Your task to perform on an android device: turn off data saver in the chrome app Image 0: 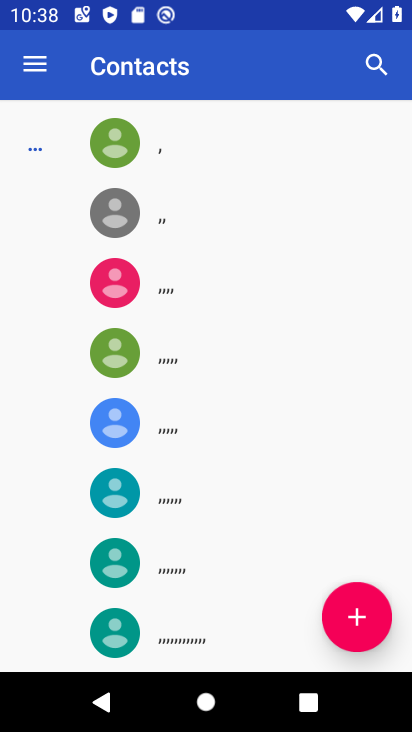
Step 0: press home button
Your task to perform on an android device: turn off data saver in the chrome app Image 1: 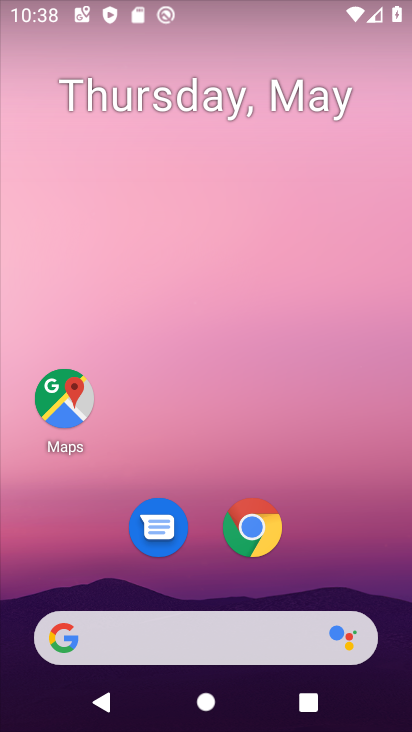
Step 1: click (256, 524)
Your task to perform on an android device: turn off data saver in the chrome app Image 2: 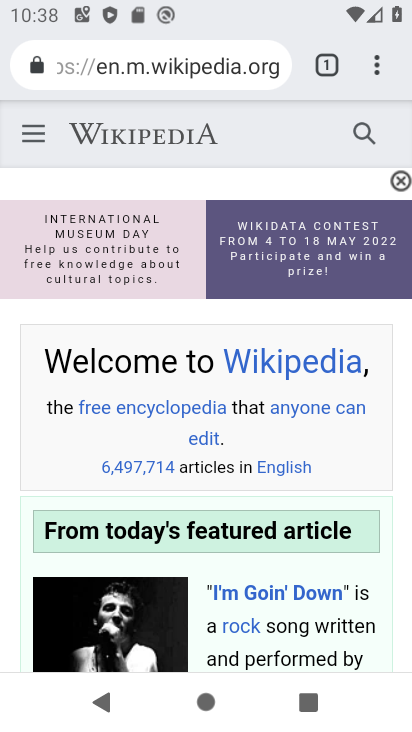
Step 2: click (375, 67)
Your task to perform on an android device: turn off data saver in the chrome app Image 3: 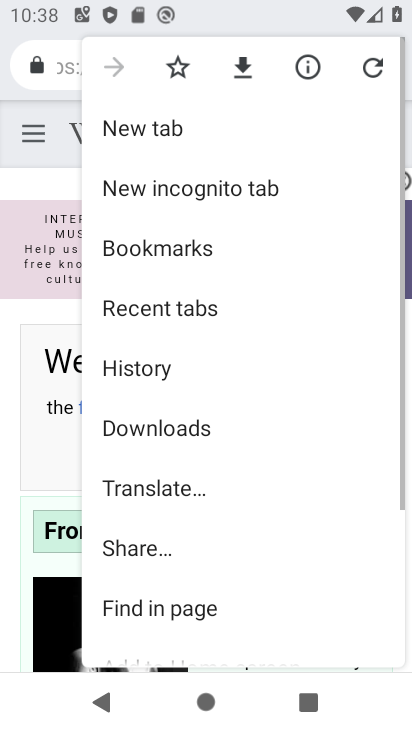
Step 3: drag from (213, 571) to (283, 174)
Your task to perform on an android device: turn off data saver in the chrome app Image 4: 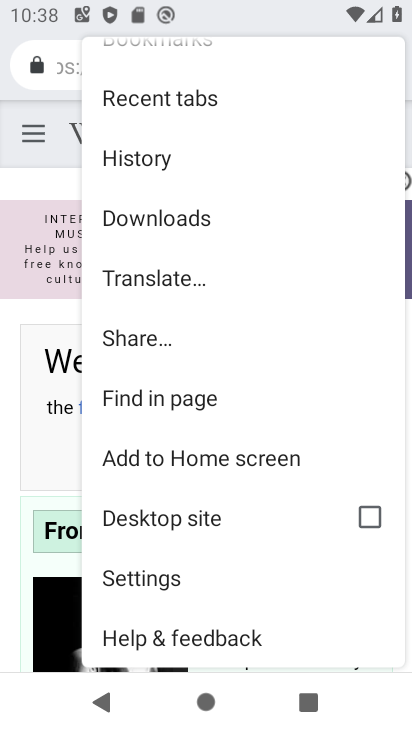
Step 4: click (148, 570)
Your task to perform on an android device: turn off data saver in the chrome app Image 5: 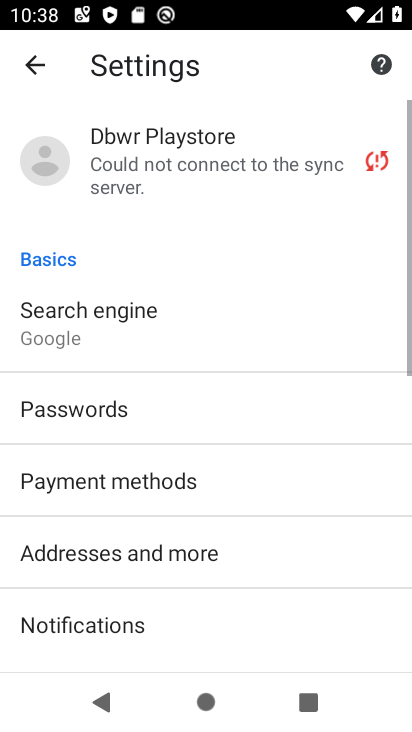
Step 5: drag from (183, 471) to (282, 96)
Your task to perform on an android device: turn off data saver in the chrome app Image 6: 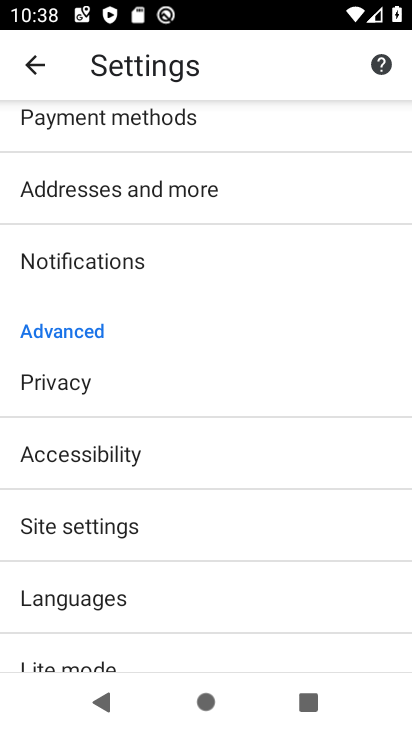
Step 6: click (87, 660)
Your task to perform on an android device: turn off data saver in the chrome app Image 7: 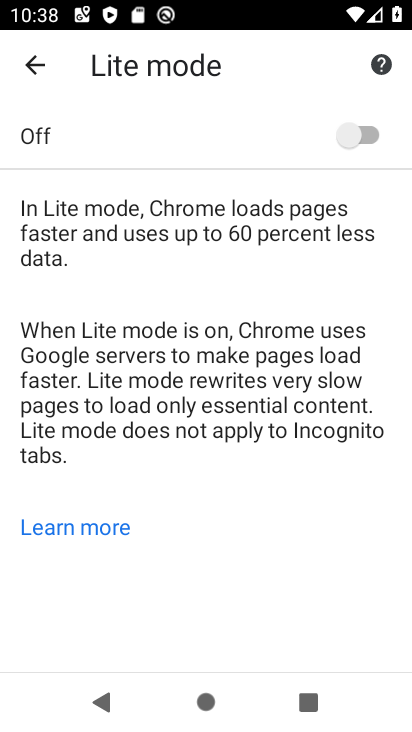
Step 7: task complete